Your task to perform on an android device: change notifications settings Image 0: 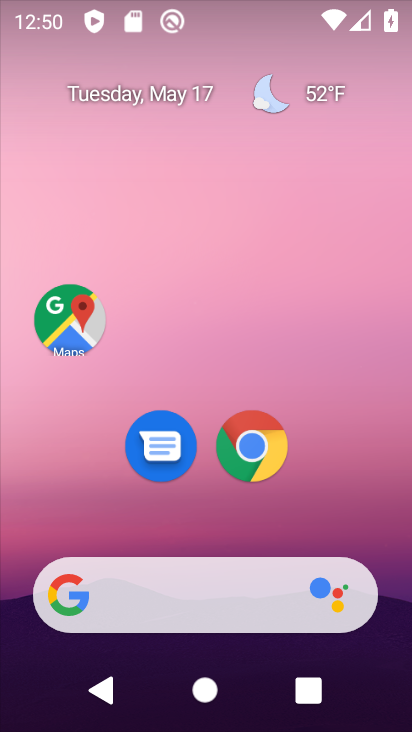
Step 0: drag from (386, 530) to (321, 153)
Your task to perform on an android device: change notifications settings Image 1: 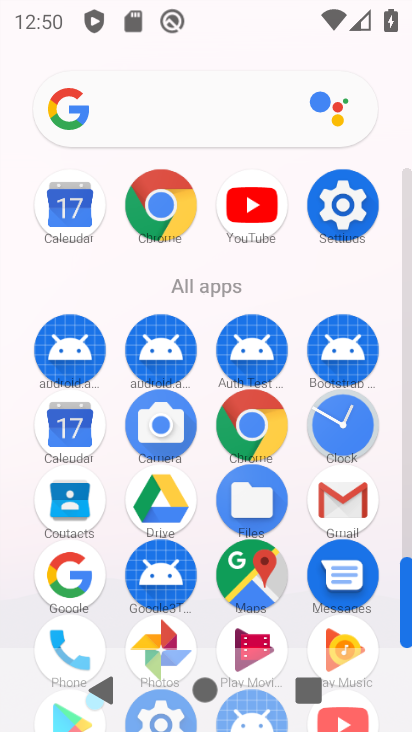
Step 1: click (354, 226)
Your task to perform on an android device: change notifications settings Image 2: 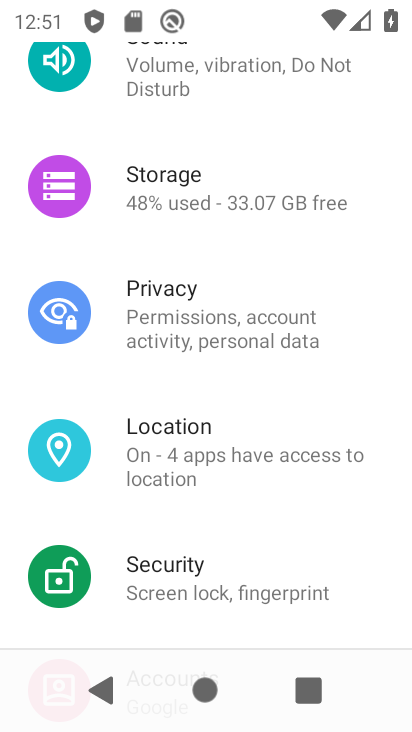
Step 2: drag from (175, 255) to (173, 728)
Your task to perform on an android device: change notifications settings Image 3: 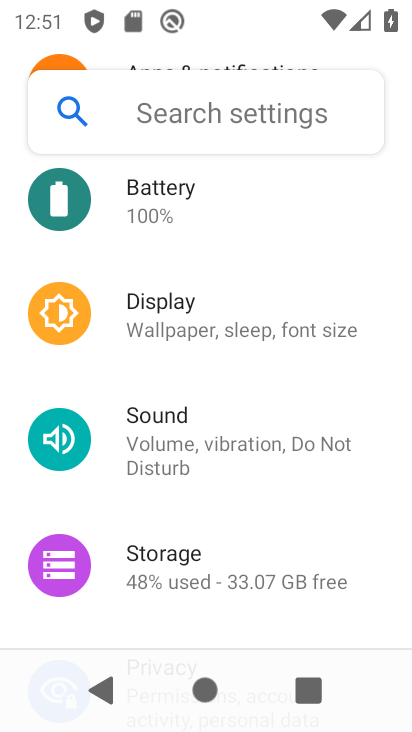
Step 3: drag from (234, 250) to (219, 566)
Your task to perform on an android device: change notifications settings Image 4: 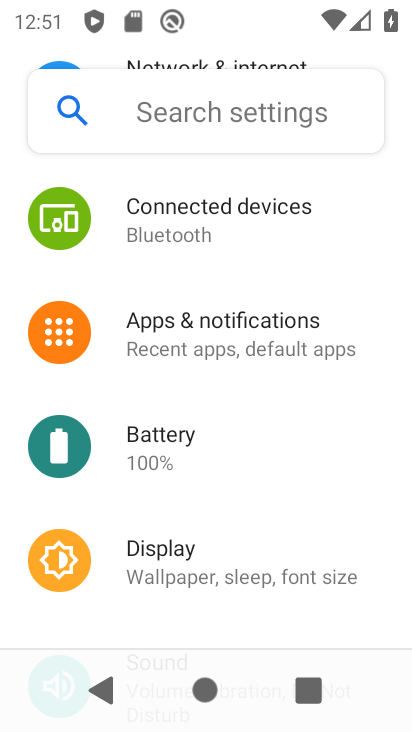
Step 4: click (216, 339)
Your task to perform on an android device: change notifications settings Image 5: 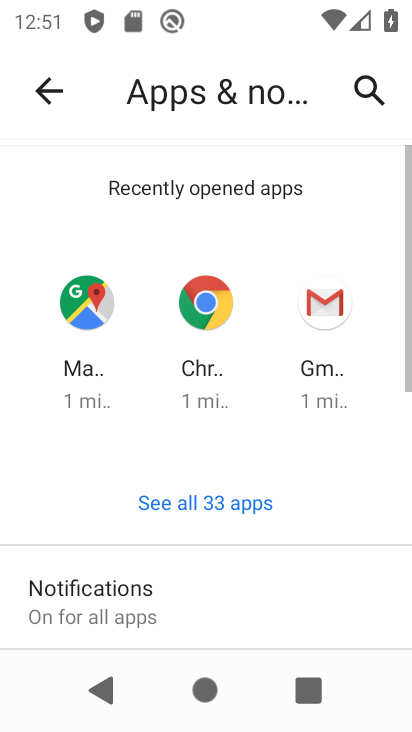
Step 5: drag from (244, 555) to (227, 462)
Your task to perform on an android device: change notifications settings Image 6: 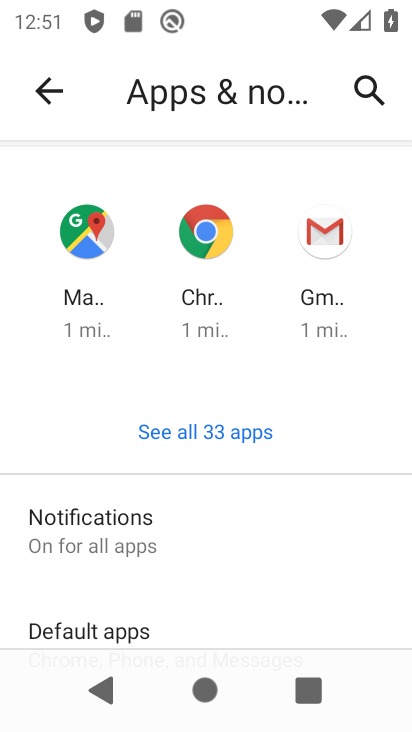
Step 6: click (119, 523)
Your task to perform on an android device: change notifications settings Image 7: 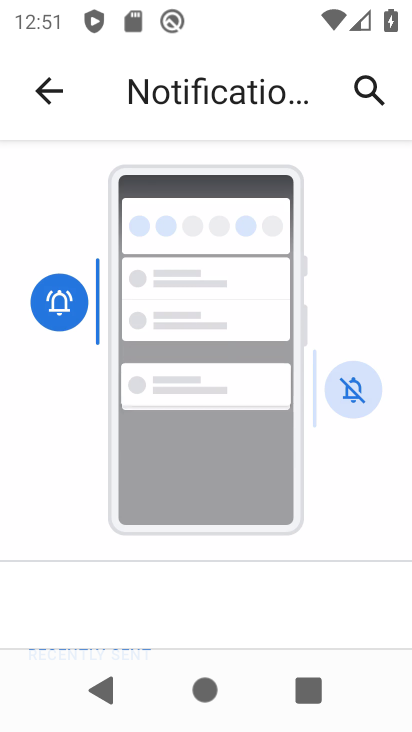
Step 7: drag from (314, 612) to (285, 434)
Your task to perform on an android device: change notifications settings Image 8: 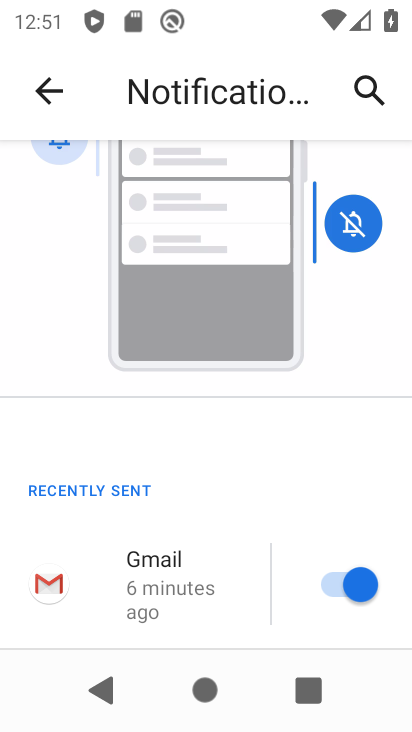
Step 8: click (353, 584)
Your task to perform on an android device: change notifications settings Image 9: 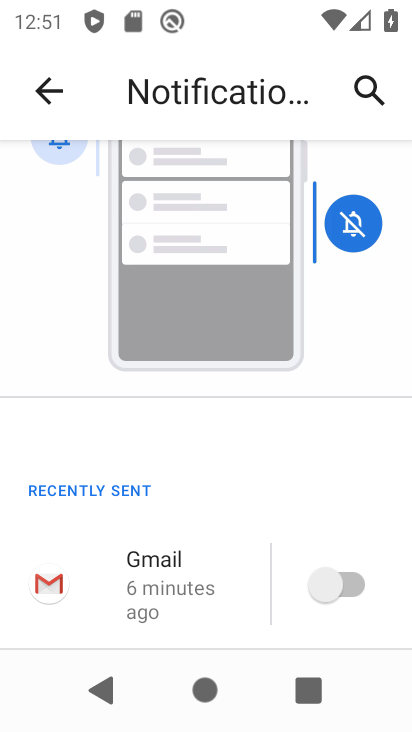
Step 9: drag from (316, 554) to (304, 141)
Your task to perform on an android device: change notifications settings Image 10: 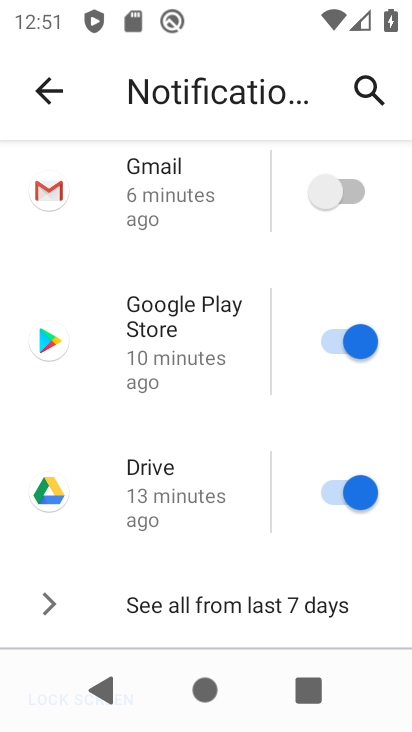
Step 10: drag from (273, 566) to (252, 212)
Your task to perform on an android device: change notifications settings Image 11: 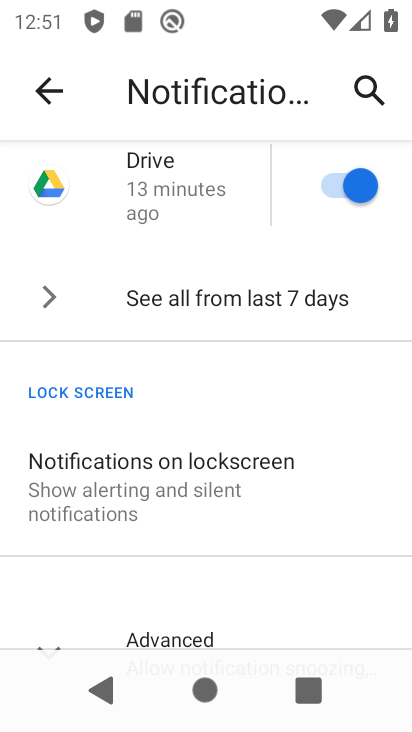
Step 11: drag from (262, 591) to (272, 318)
Your task to perform on an android device: change notifications settings Image 12: 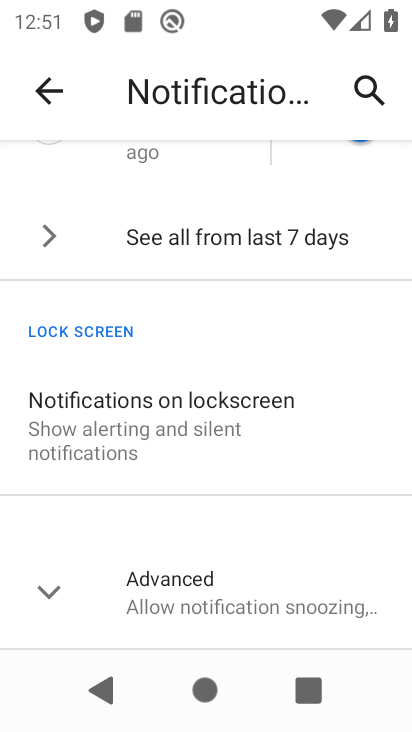
Step 12: click (60, 584)
Your task to perform on an android device: change notifications settings Image 13: 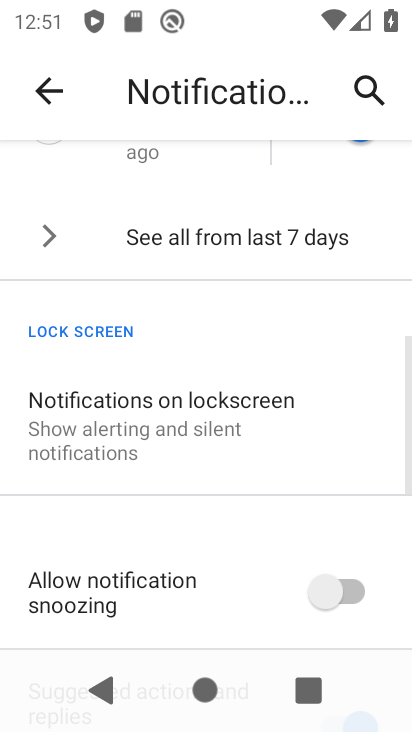
Step 13: drag from (235, 577) to (251, 413)
Your task to perform on an android device: change notifications settings Image 14: 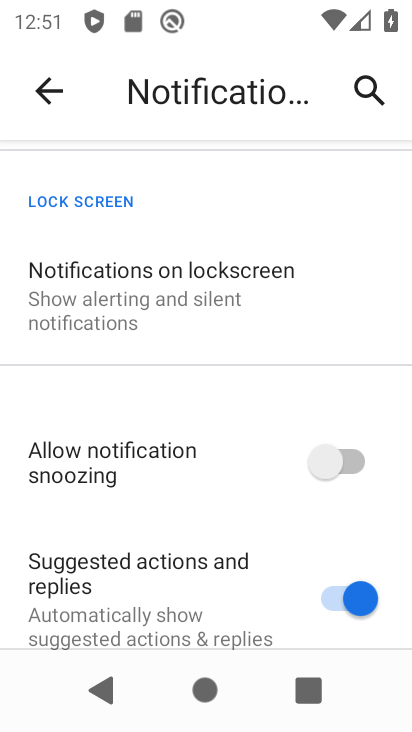
Step 14: click (325, 445)
Your task to perform on an android device: change notifications settings Image 15: 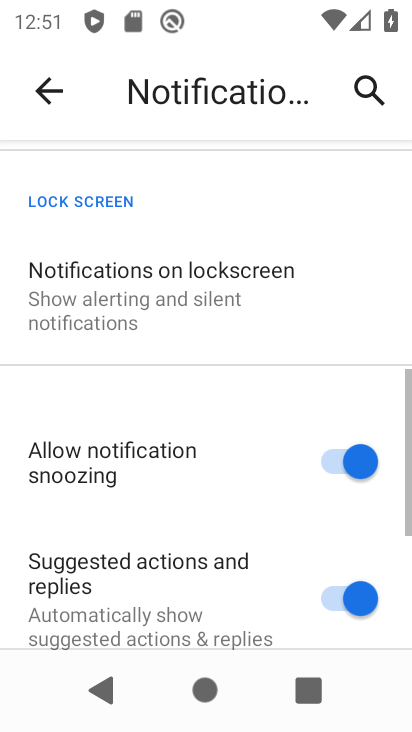
Step 15: click (346, 596)
Your task to perform on an android device: change notifications settings Image 16: 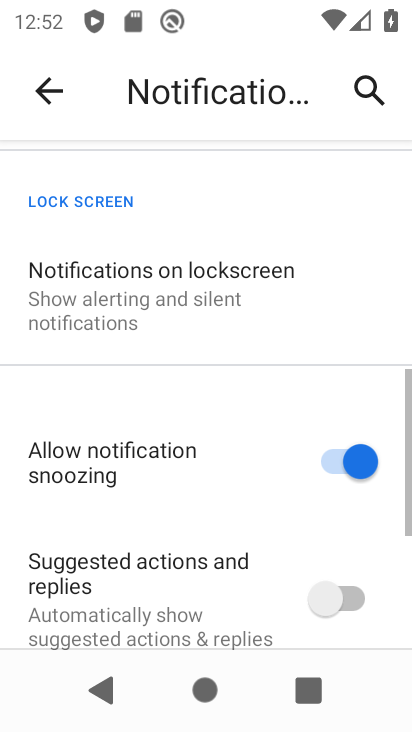
Step 16: drag from (286, 571) to (249, 360)
Your task to perform on an android device: change notifications settings Image 17: 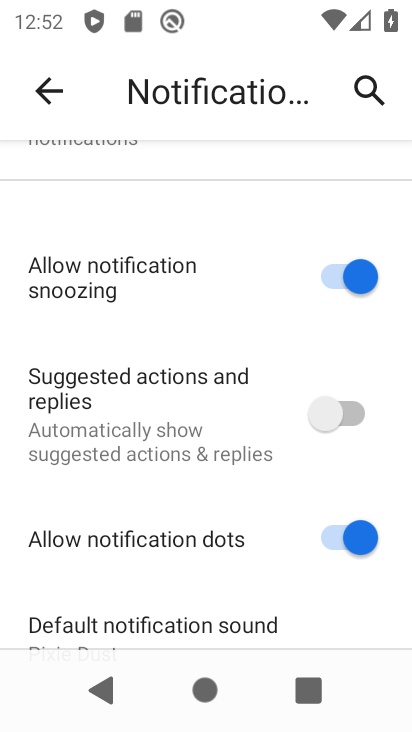
Step 17: click (341, 532)
Your task to perform on an android device: change notifications settings Image 18: 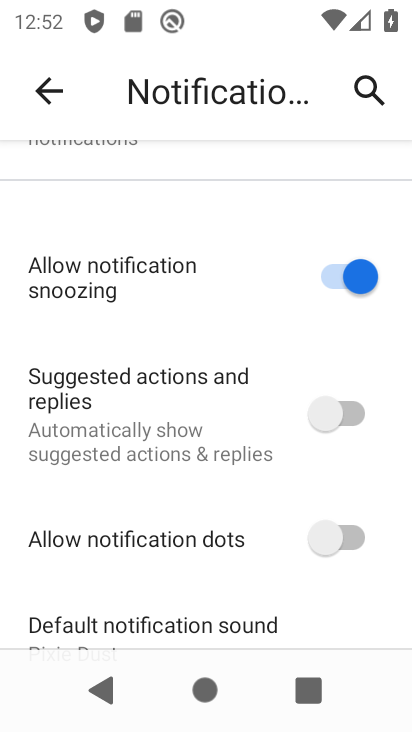
Step 18: task complete